Your task to perform on an android device: Open privacy settings Image 0: 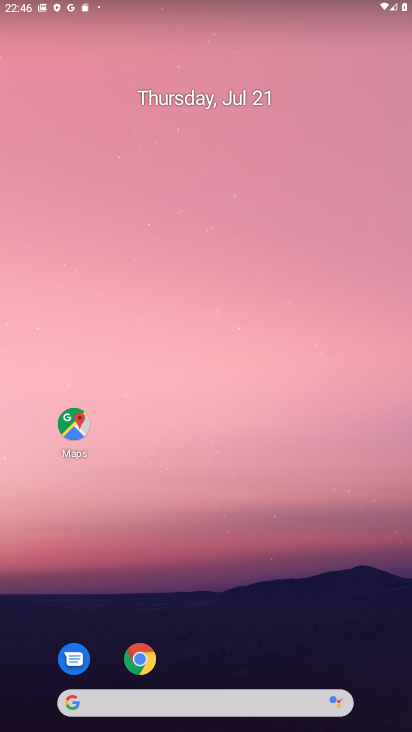
Step 0: drag from (170, 698) to (191, 142)
Your task to perform on an android device: Open privacy settings Image 1: 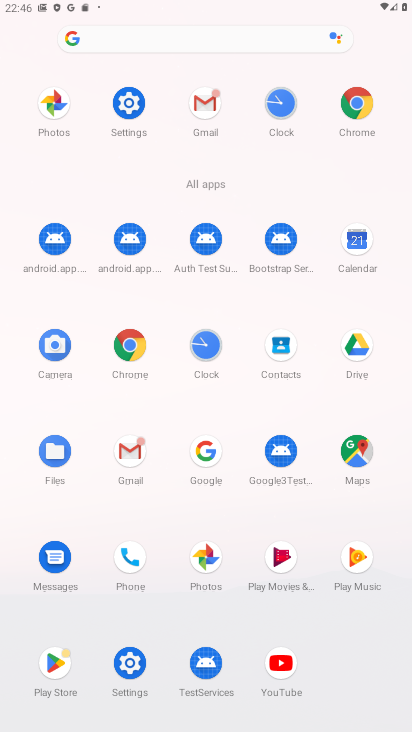
Step 1: click (126, 104)
Your task to perform on an android device: Open privacy settings Image 2: 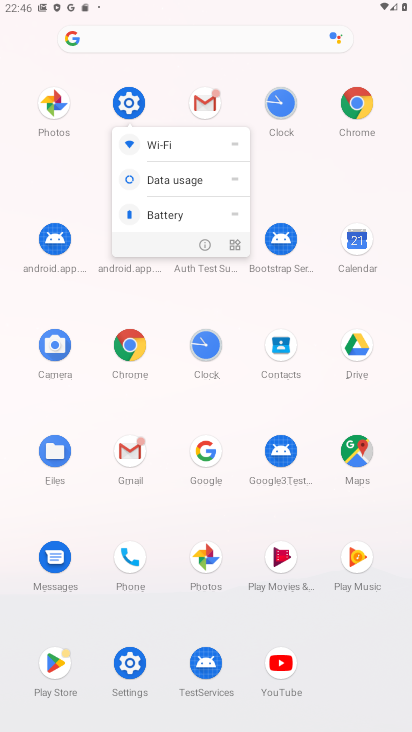
Step 2: click (126, 104)
Your task to perform on an android device: Open privacy settings Image 3: 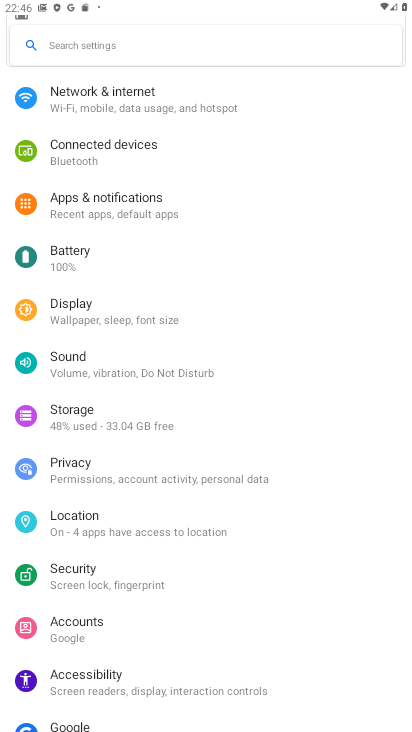
Step 3: click (69, 473)
Your task to perform on an android device: Open privacy settings Image 4: 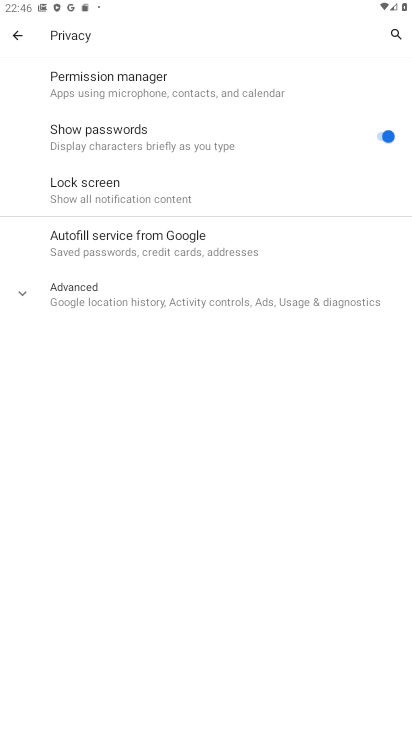
Step 4: task complete